Your task to perform on an android device: uninstall "Microsoft Excel" Image 0: 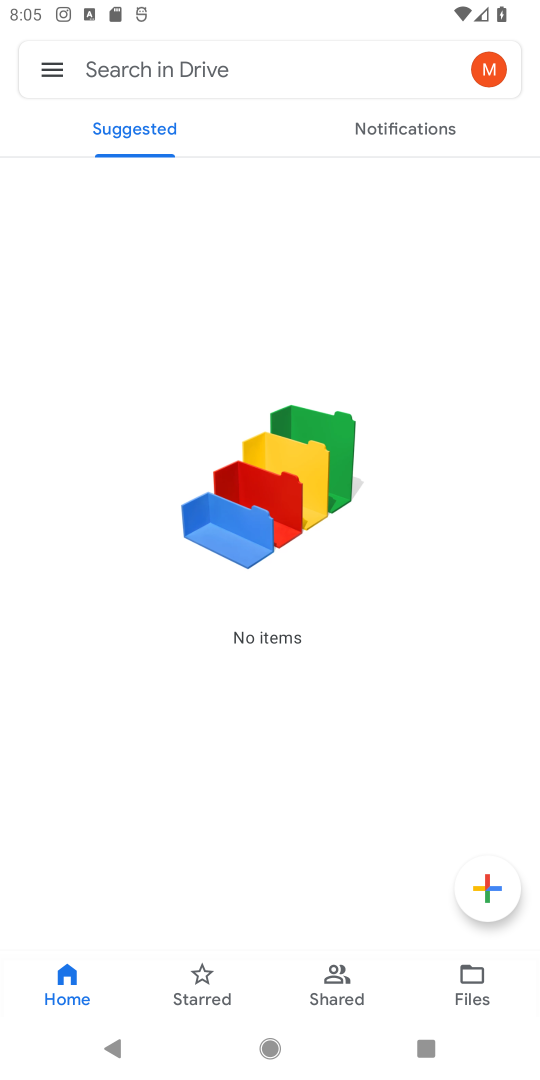
Step 0: press home button
Your task to perform on an android device: uninstall "Microsoft Excel" Image 1: 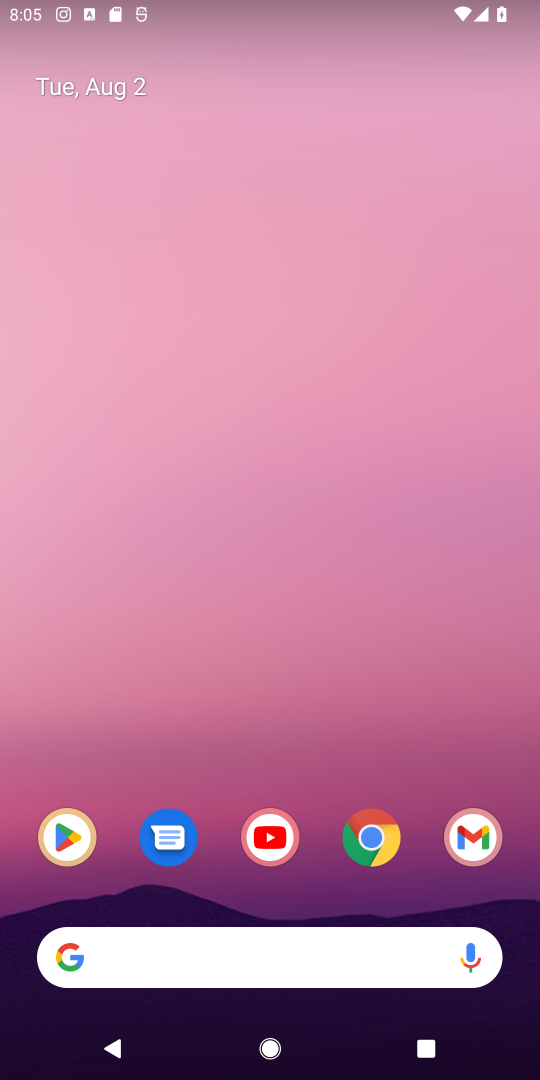
Step 1: click (72, 827)
Your task to perform on an android device: uninstall "Microsoft Excel" Image 2: 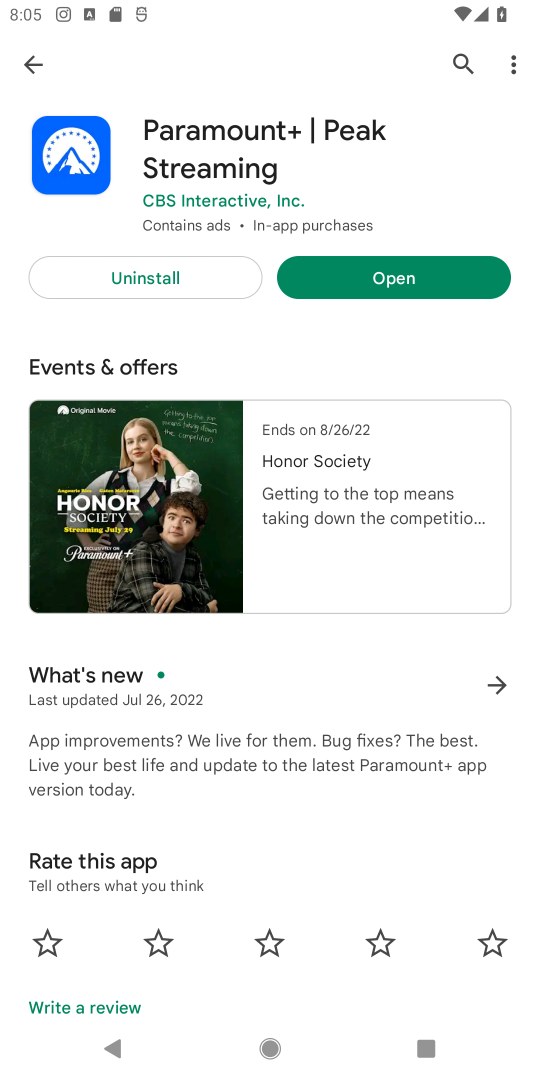
Step 2: click (458, 64)
Your task to perform on an android device: uninstall "Microsoft Excel" Image 3: 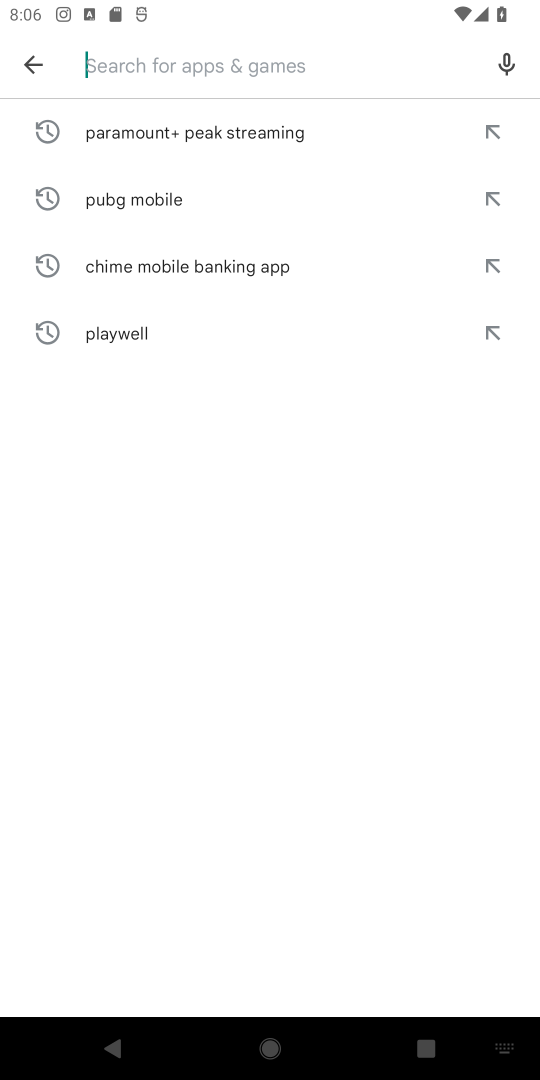
Step 3: type "Microsoft Excel"
Your task to perform on an android device: uninstall "Microsoft Excel" Image 4: 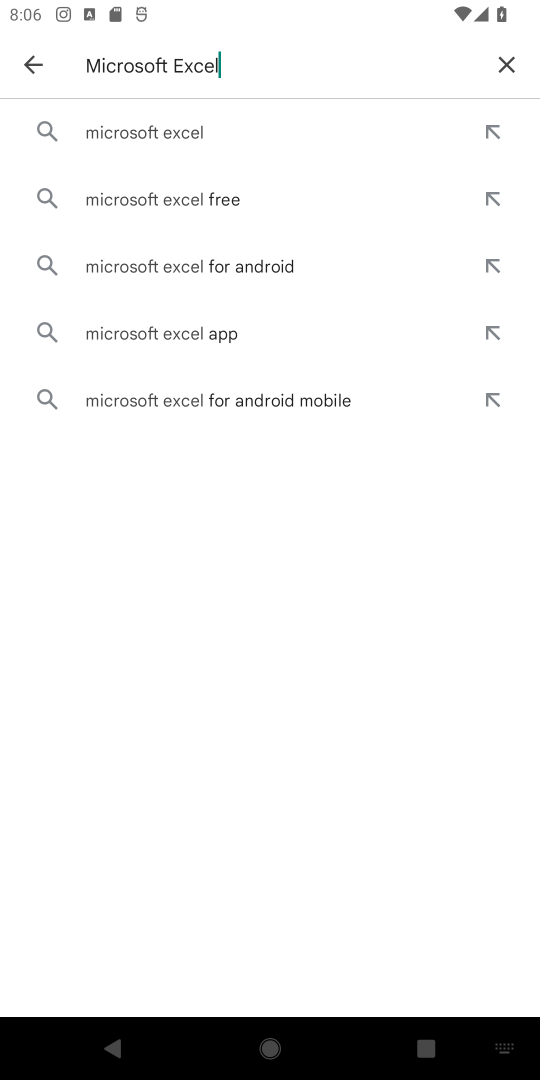
Step 4: click (150, 143)
Your task to perform on an android device: uninstall "Microsoft Excel" Image 5: 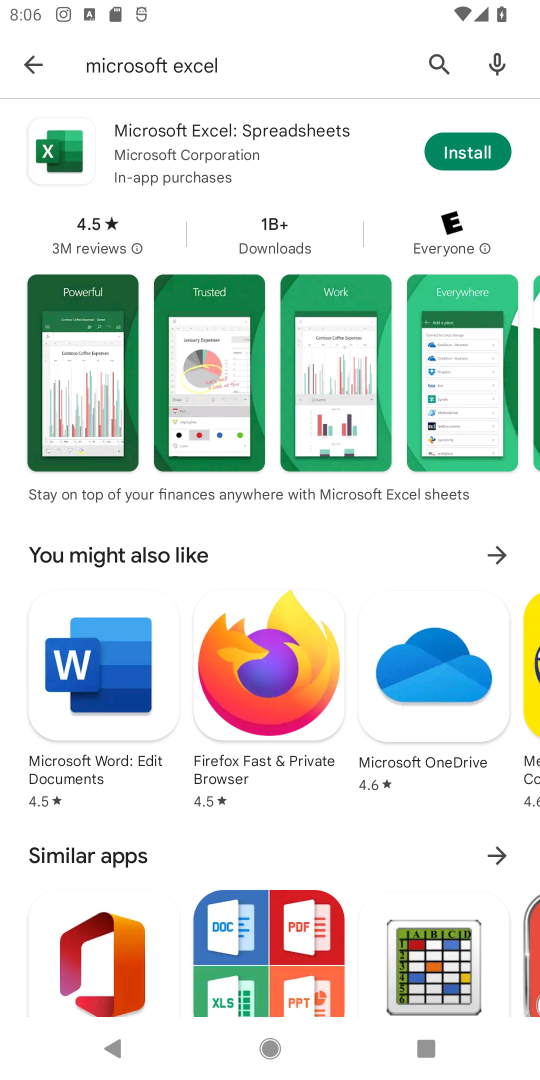
Step 5: task complete